Your task to perform on an android device: Search for vegetarian restaurants on Maps Image 0: 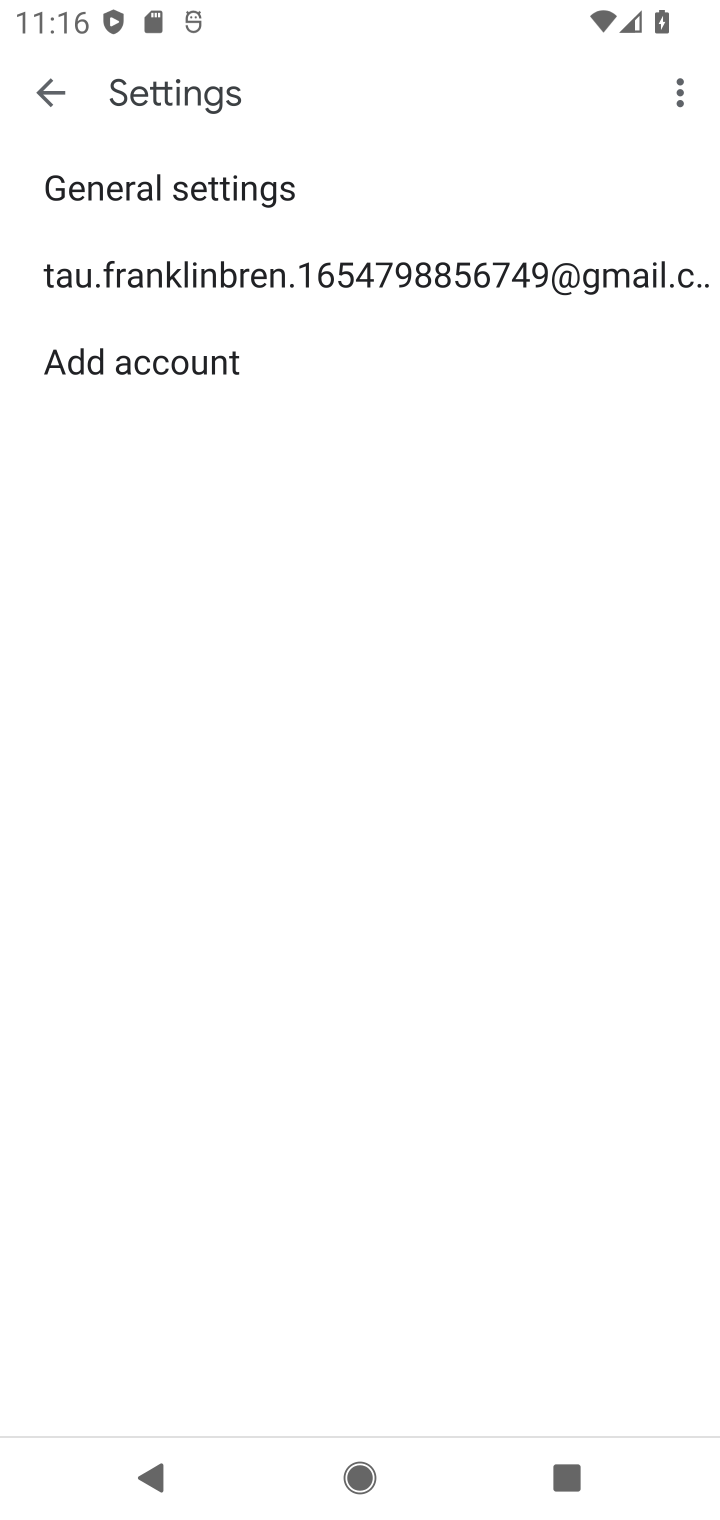
Step 0: press home button
Your task to perform on an android device: Search for vegetarian restaurants on Maps Image 1: 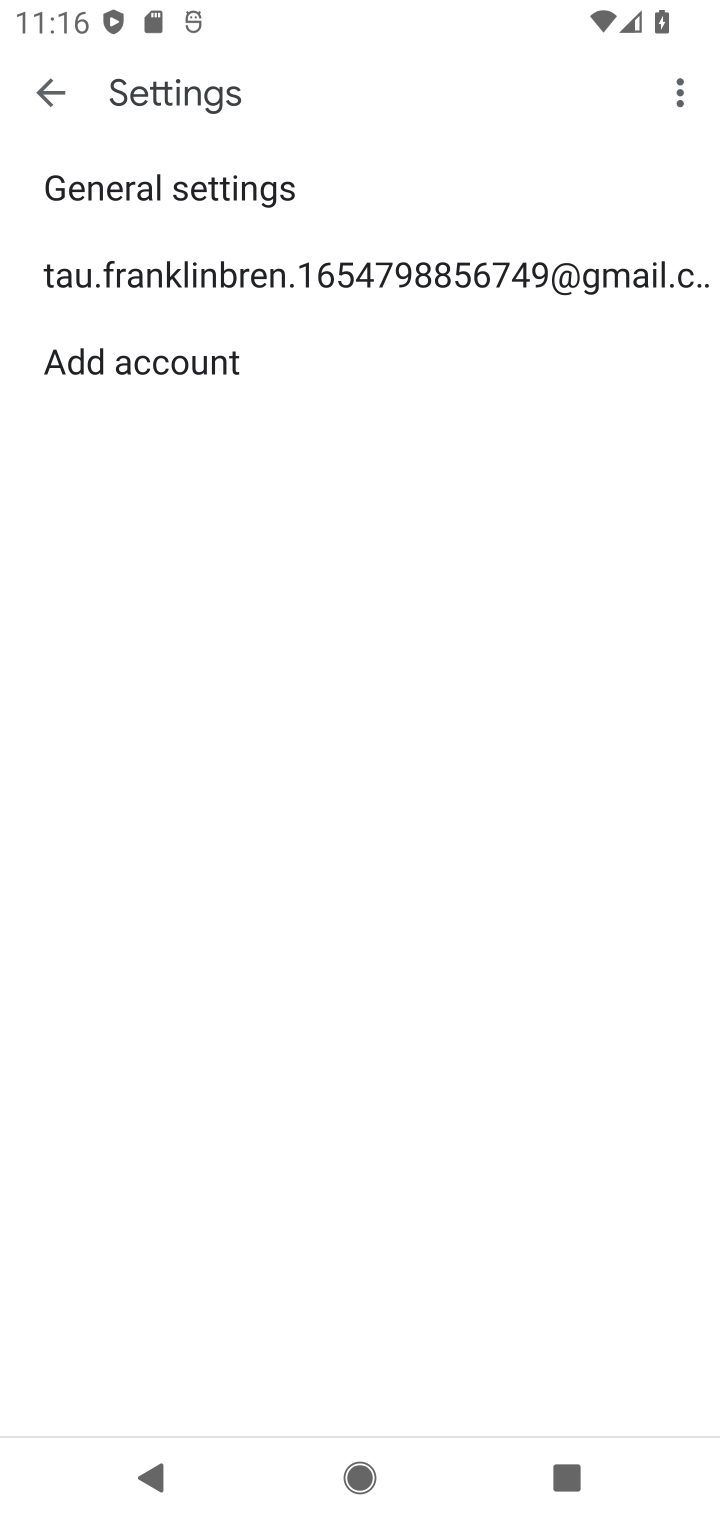
Step 1: press home button
Your task to perform on an android device: Search for vegetarian restaurants on Maps Image 2: 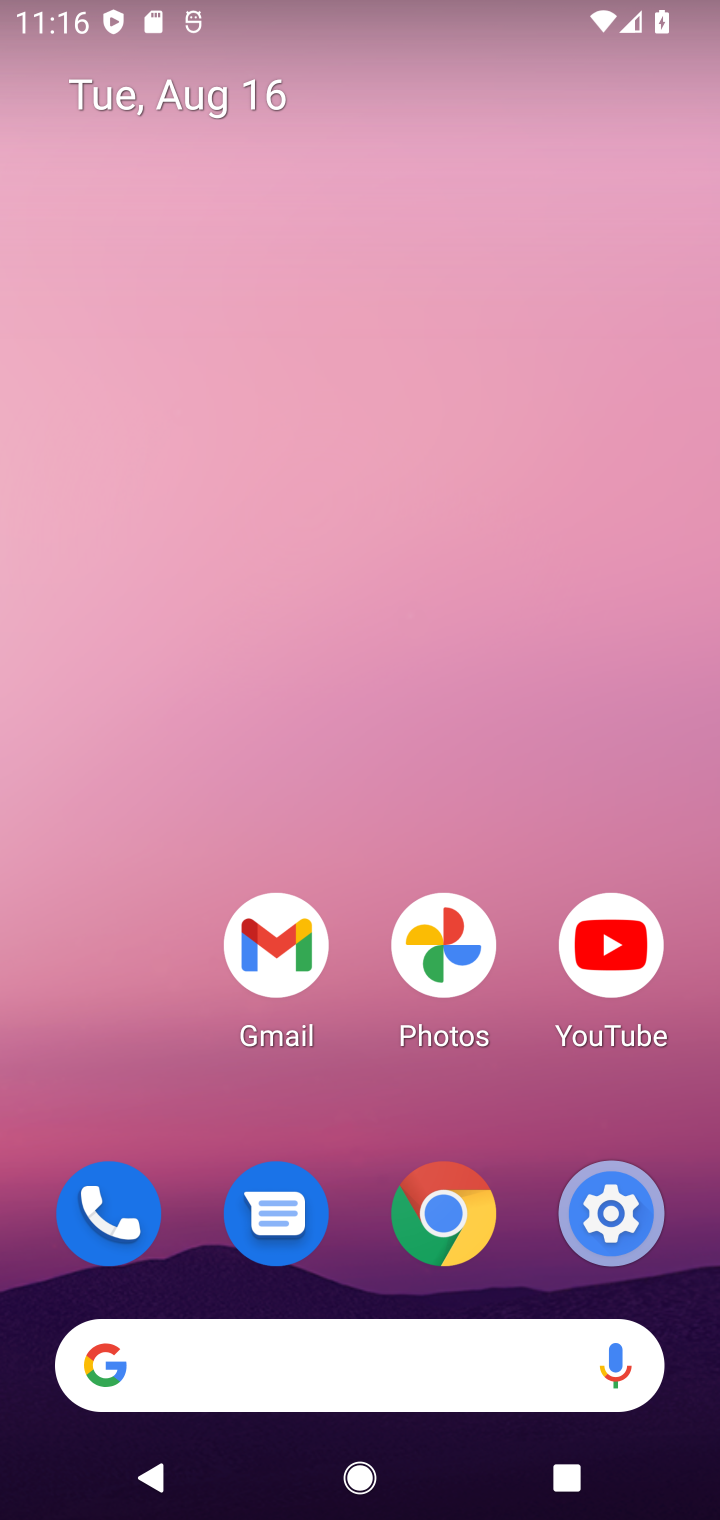
Step 2: drag from (496, 779) to (487, 130)
Your task to perform on an android device: Search for vegetarian restaurants on Maps Image 3: 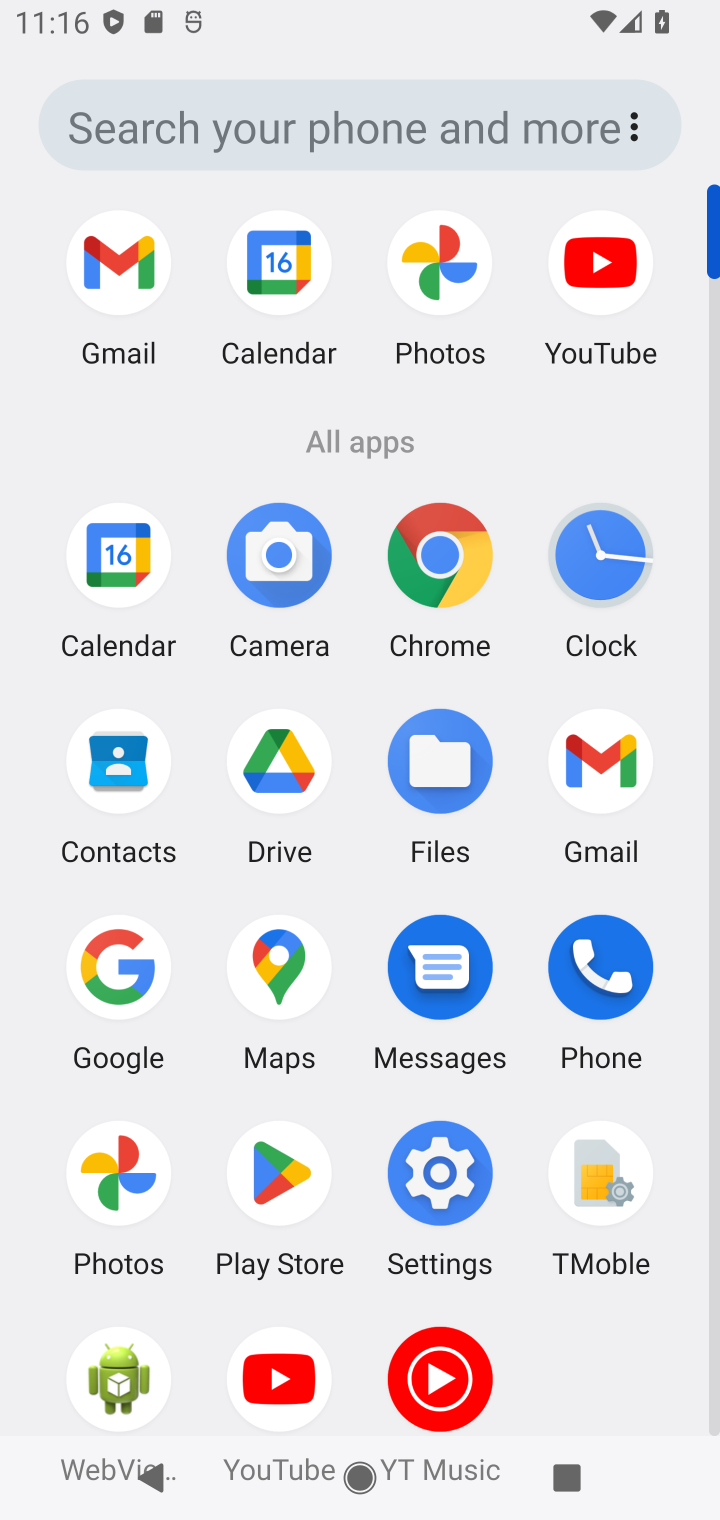
Step 3: click (275, 994)
Your task to perform on an android device: Search for vegetarian restaurants on Maps Image 4: 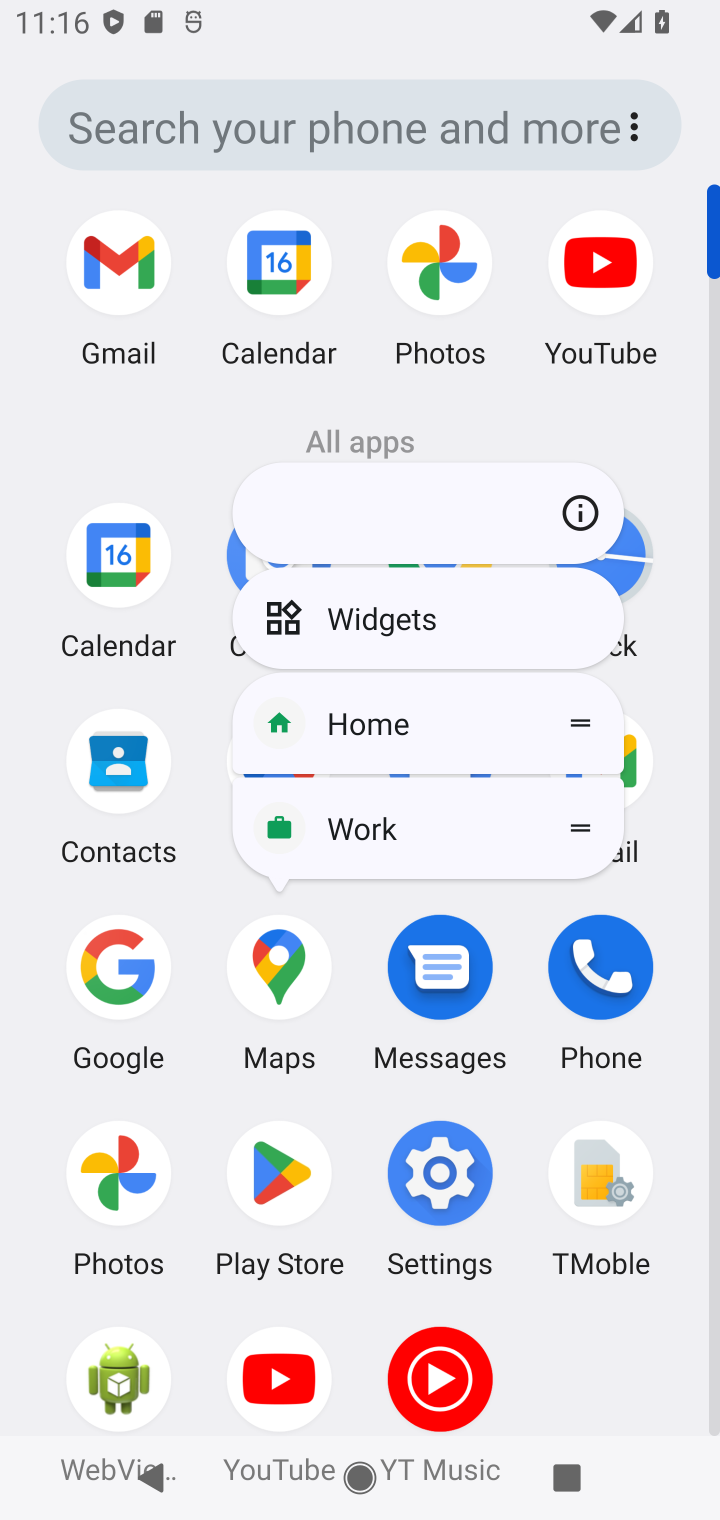
Step 4: click (270, 961)
Your task to perform on an android device: Search for vegetarian restaurants on Maps Image 5: 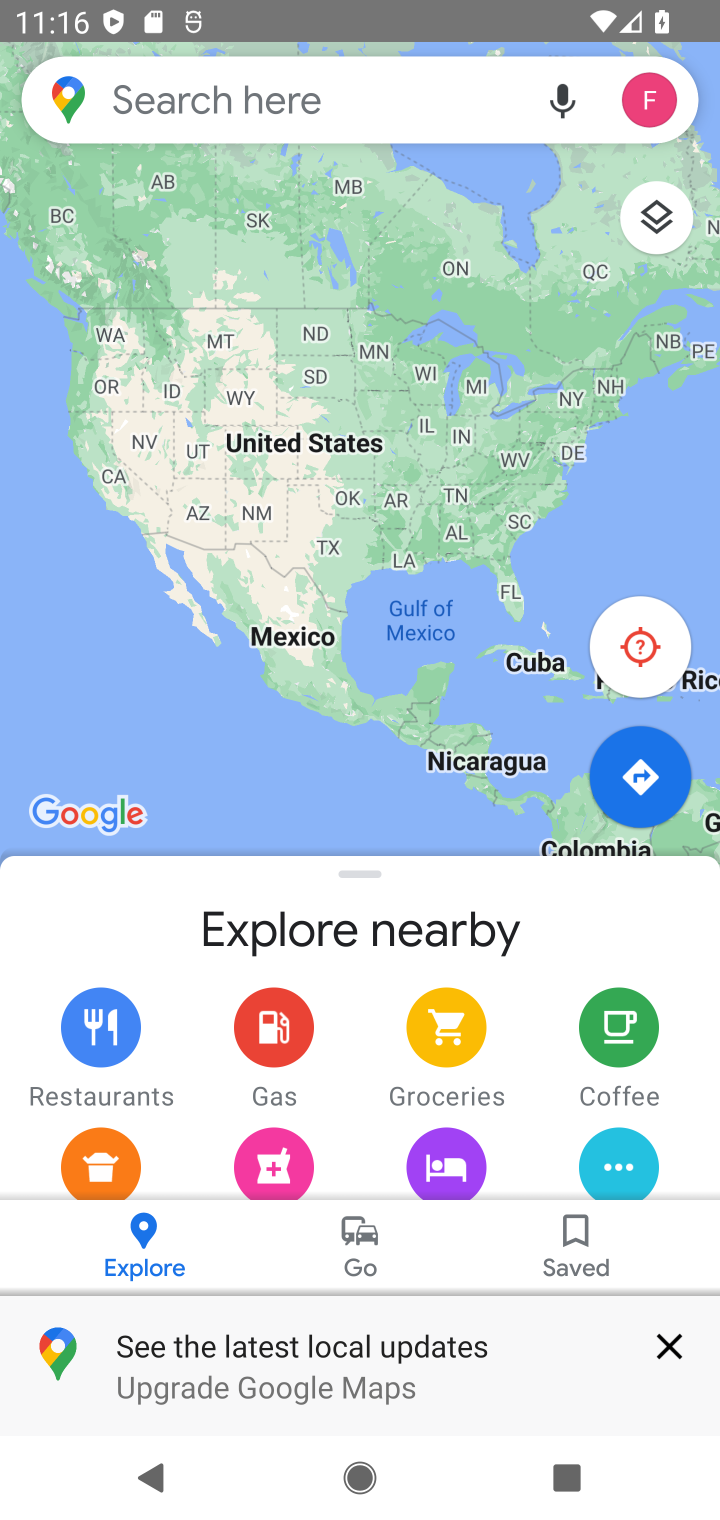
Step 5: click (191, 85)
Your task to perform on an android device: Search for vegetarian restaurants on Maps Image 6: 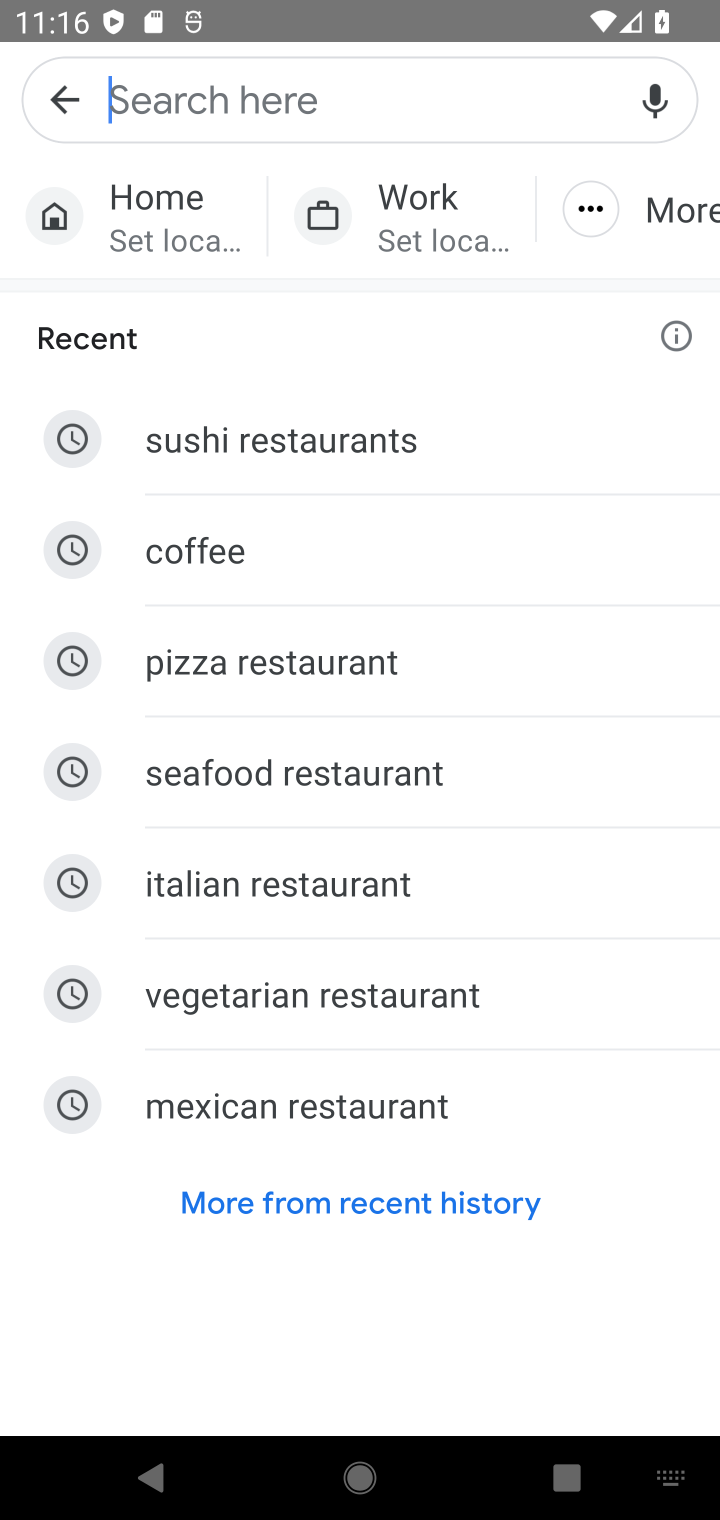
Step 6: type "vegetarian restaurants"
Your task to perform on an android device: Search for vegetarian restaurants on Maps Image 7: 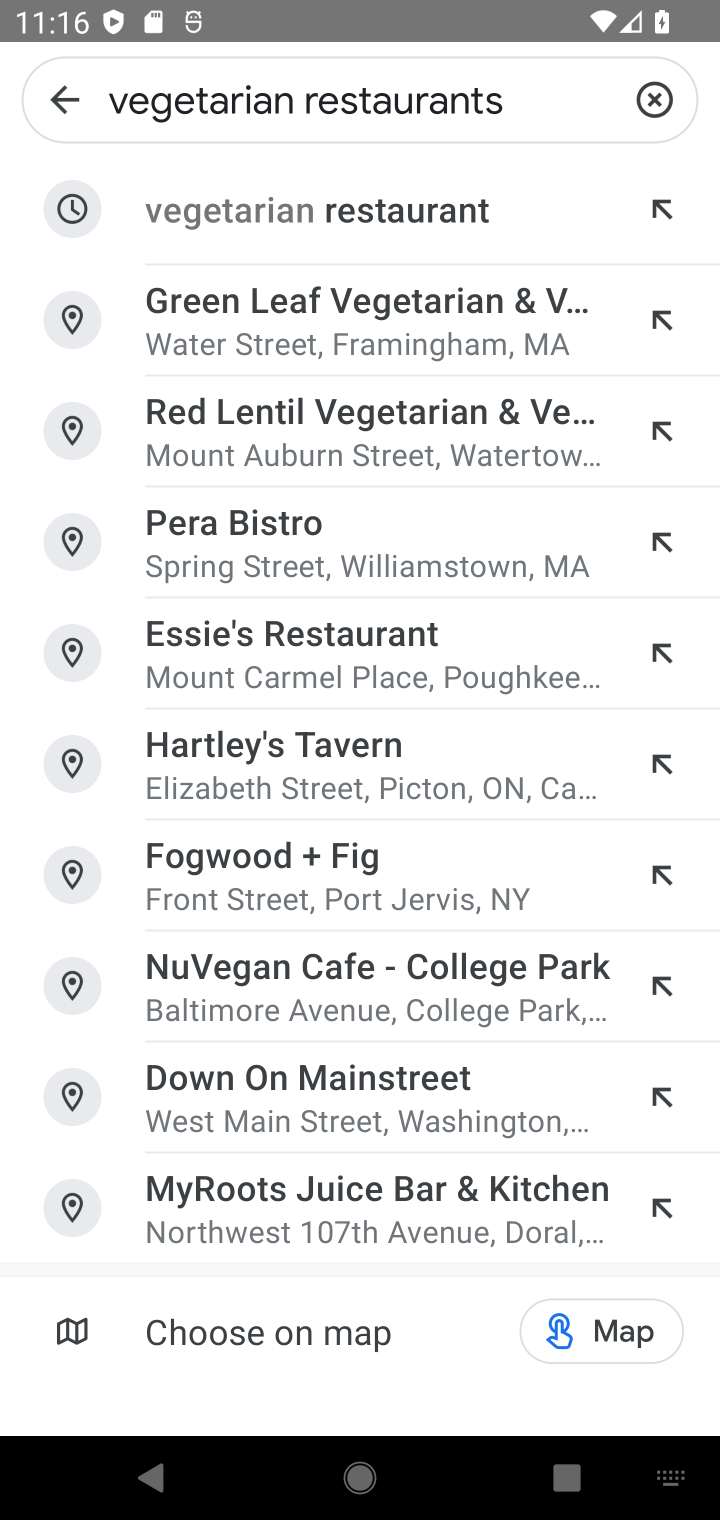
Step 7: press enter
Your task to perform on an android device: Search for vegetarian restaurants on Maps Image 8: 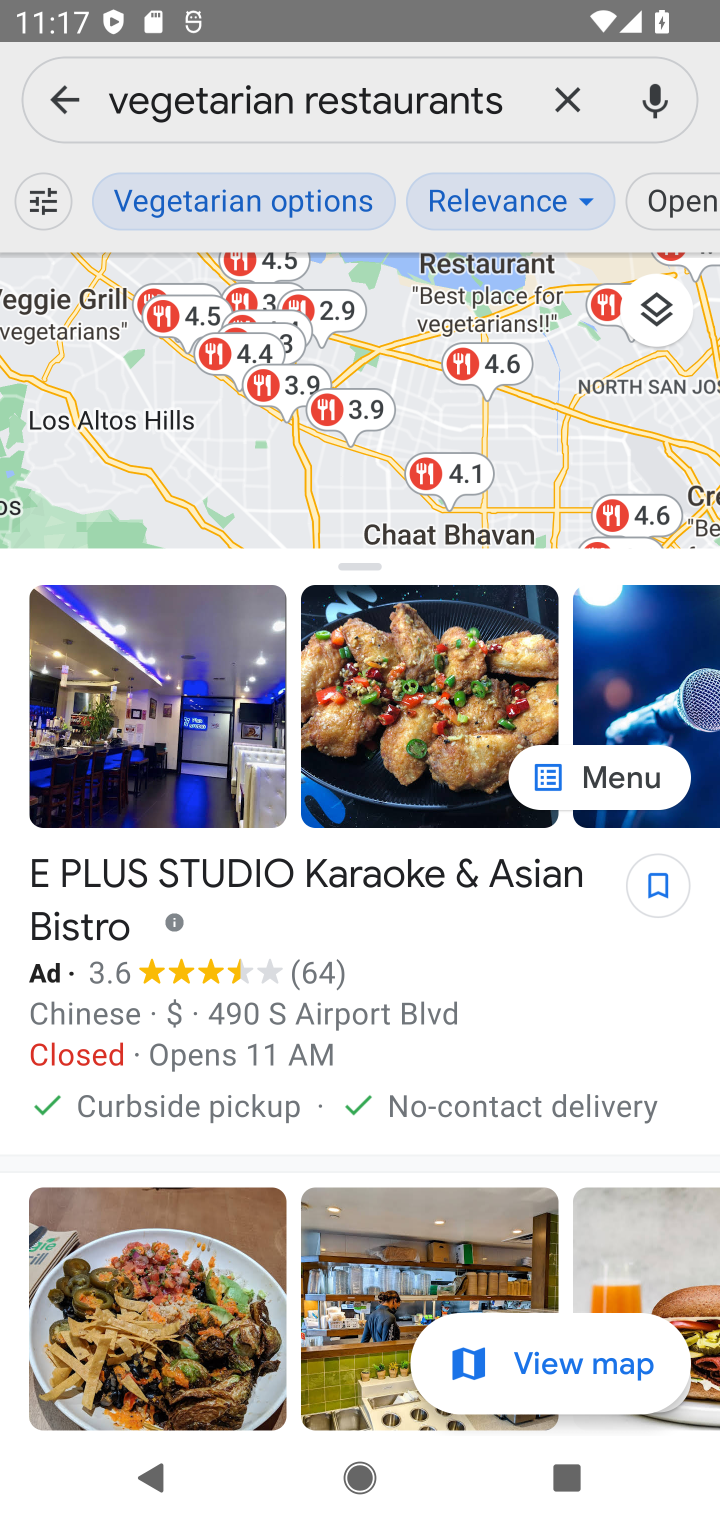
Step 8: task complete